Your task to perform on an android device: turn on bluetooth scan Image 0: 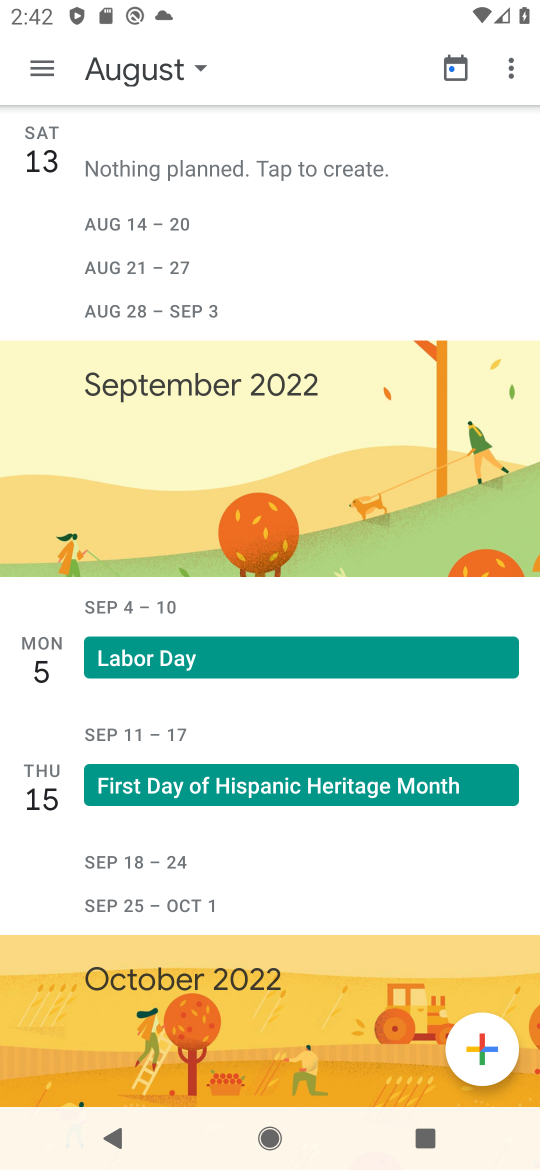
Step 0: press home button
Your task to perform on an android device: turn on bluetooth scan Image 1: 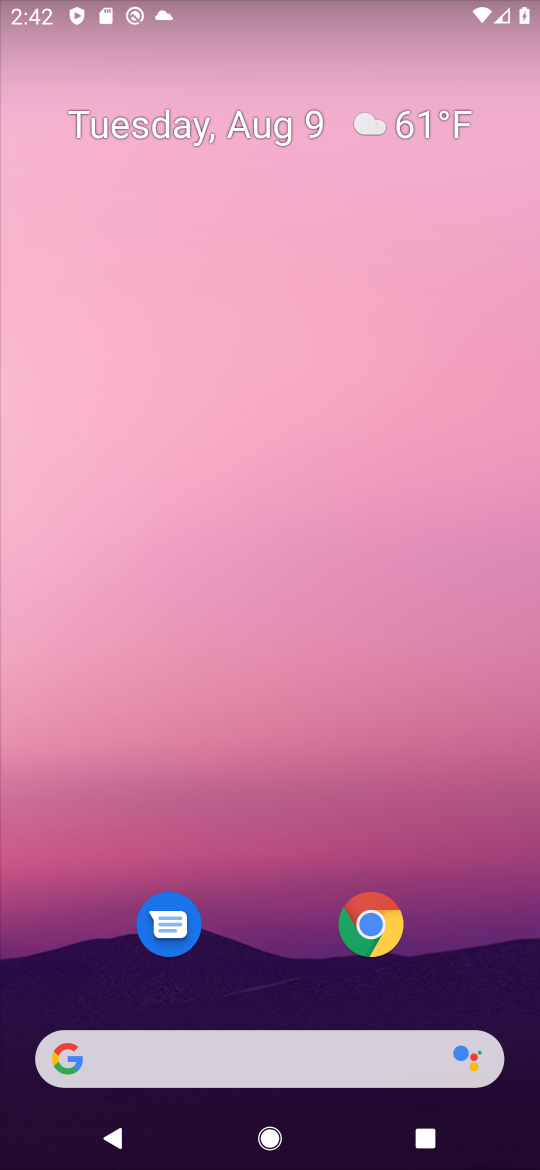
Step 1: drag from (271, 911) to (313, 1)
Your task to perform on an android device: turn on bluetooth scan Image 2: 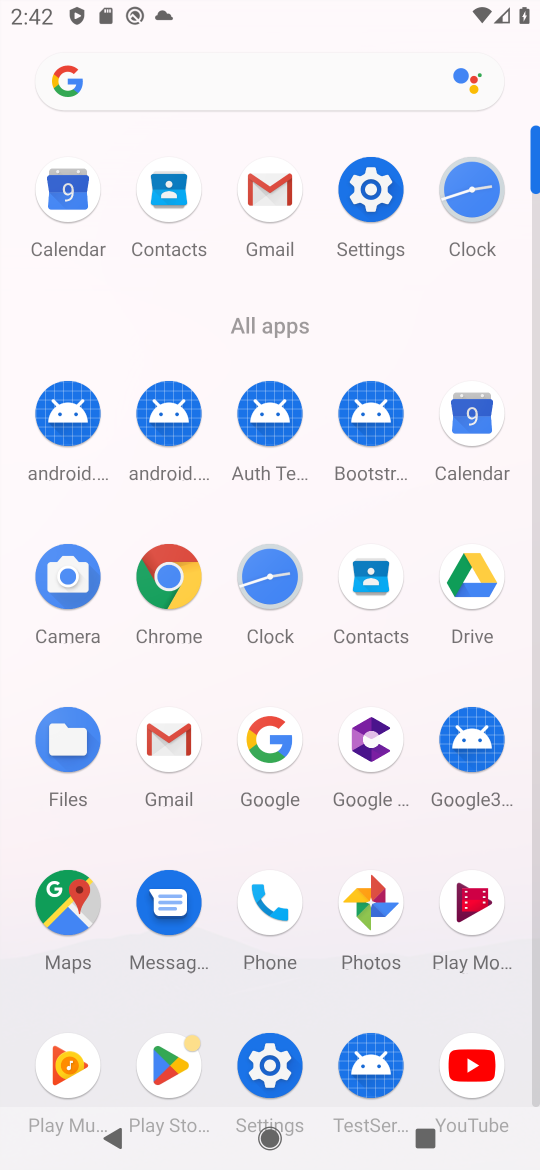
Step 2: click (373, 183)
Your task to perform on an android device: turn on bluetooth scan Image 3: 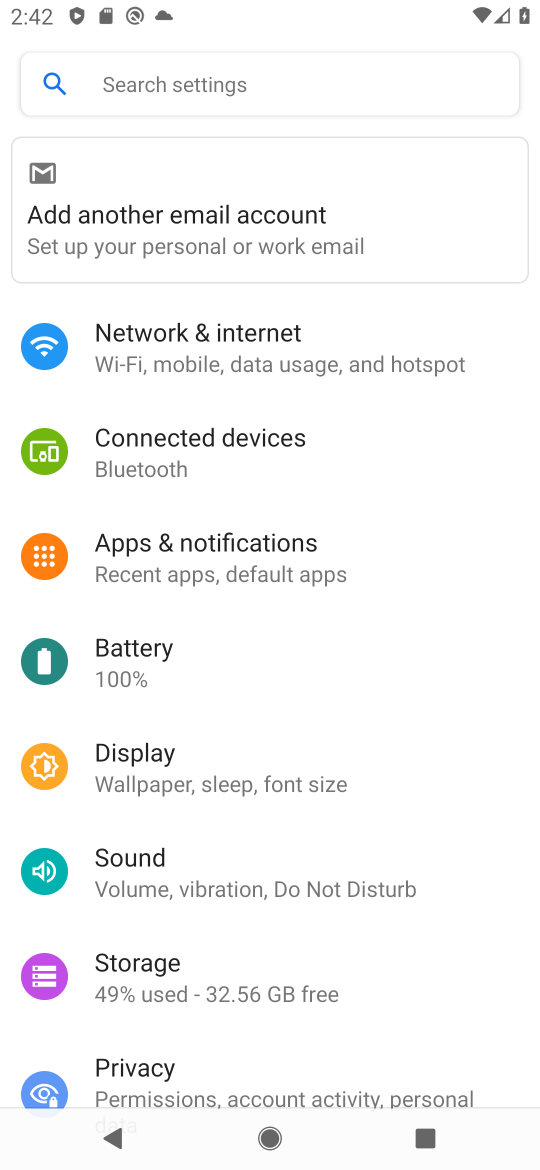
Step 3: drag from (306, 705) to (350, 207)
Your task to perform on an android device: turn on bluetooth scan Image 4: 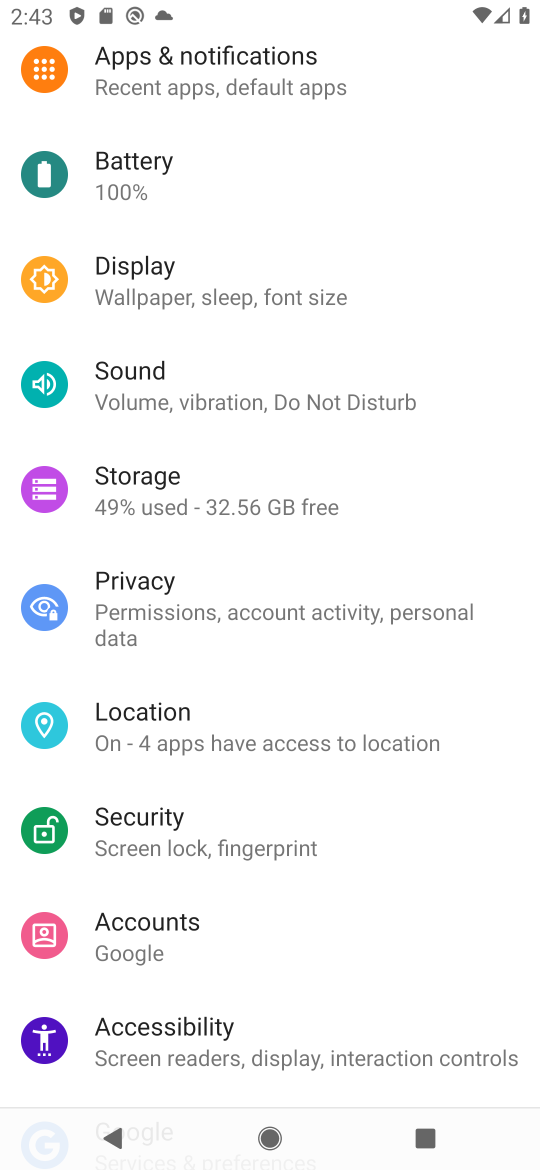
Step 4: click (288, 733)
Your task to perform on an android device: turn on bluetooth scan Image 5: 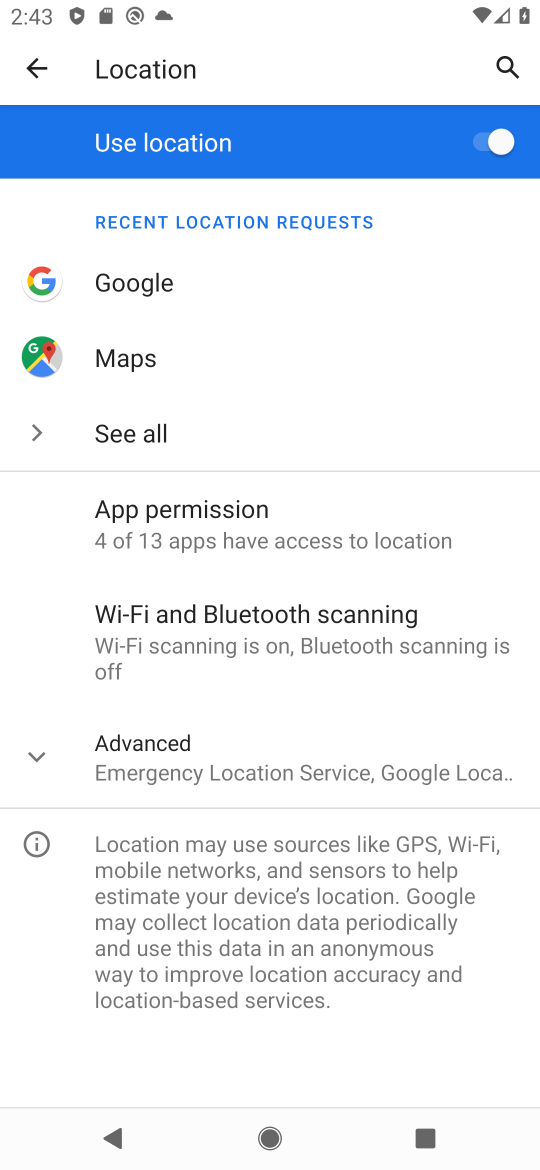
Step 5: click (327, 636)
Your task to perform on an android device: turn on bluetooth scan Image 6: 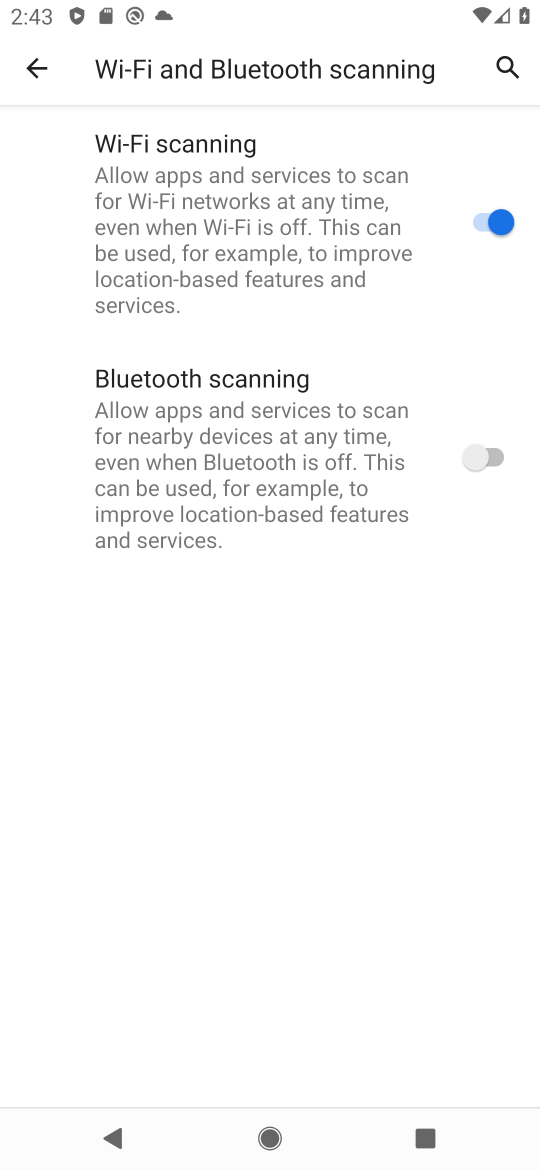
Step 6: click (487, 454)
Your task to perform on an android device: turn on bluetooth scan Image 7: 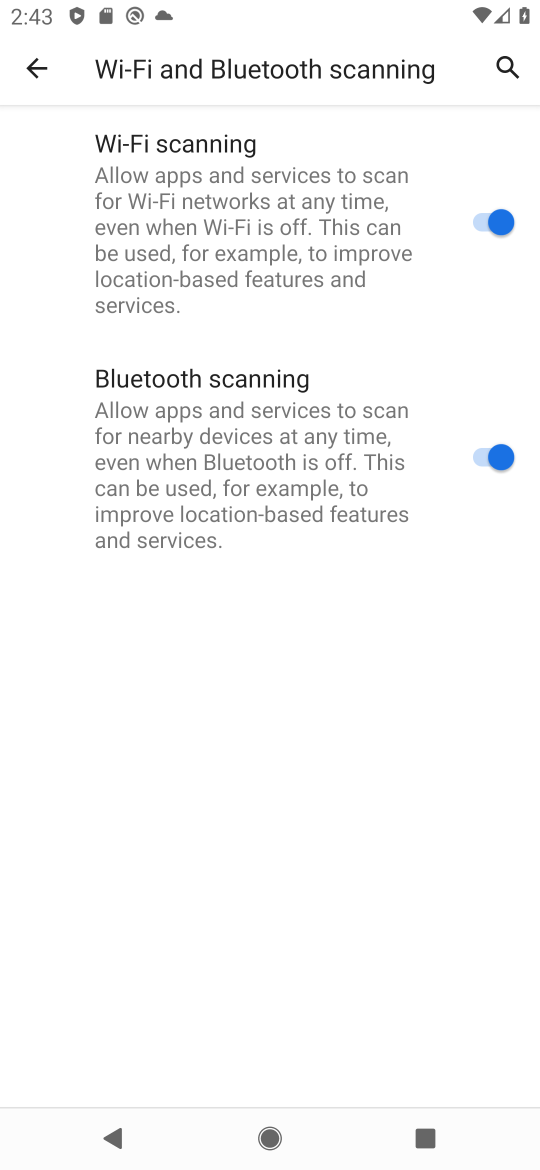
Step 7: task complete